Your task to perform on an android device: turn on data saver in the chrome app Image 0: 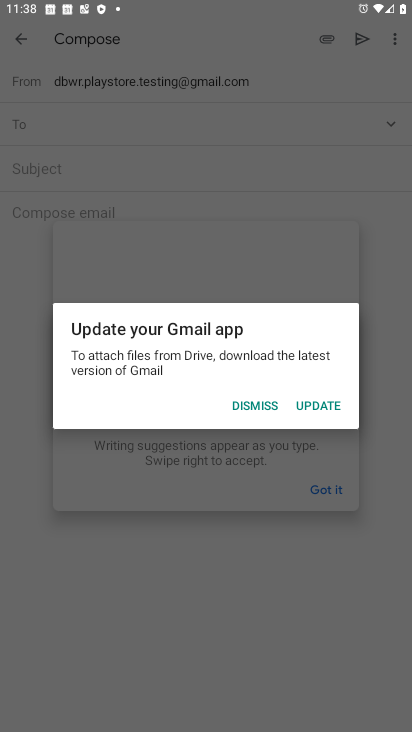
Step 0: press home button
Your task to perform on an android device: turn on data saver in the chrome app Image 1: 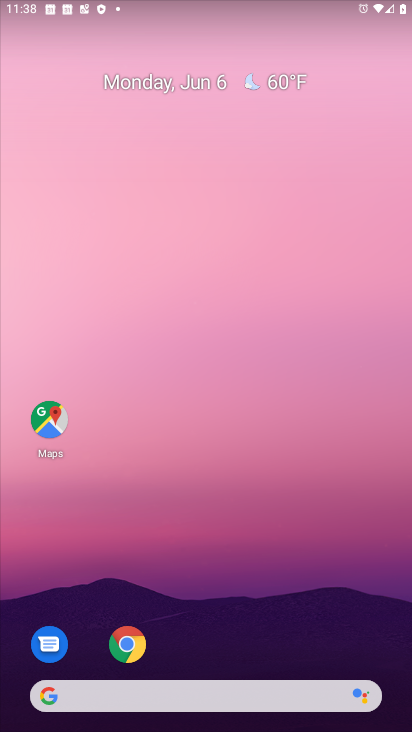
Step 1: click (134, 654)
Your task to perform on an android device: turn on data saver in the chrome app Image 2: 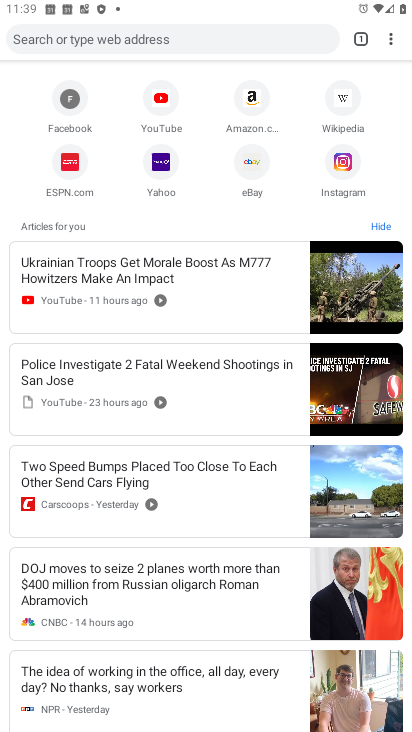
Step 2: click (389, 36)
Your task to perform on an android device: turn on data saver in the chrome app Image 3: 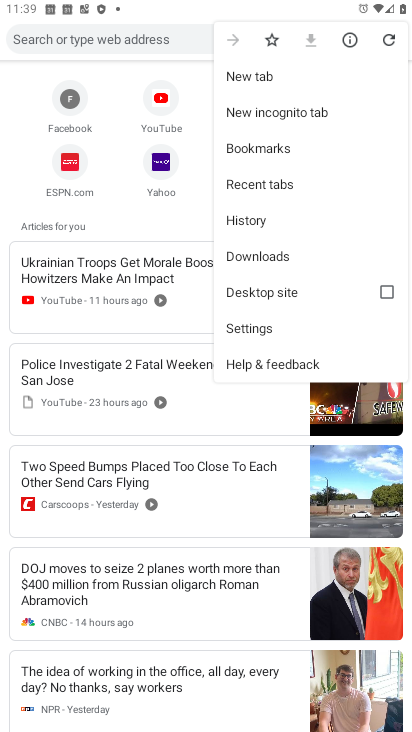
Step 3: click (265, 325)
Your task to perform on an android device: turn on data saver in the chrome app Image 4: 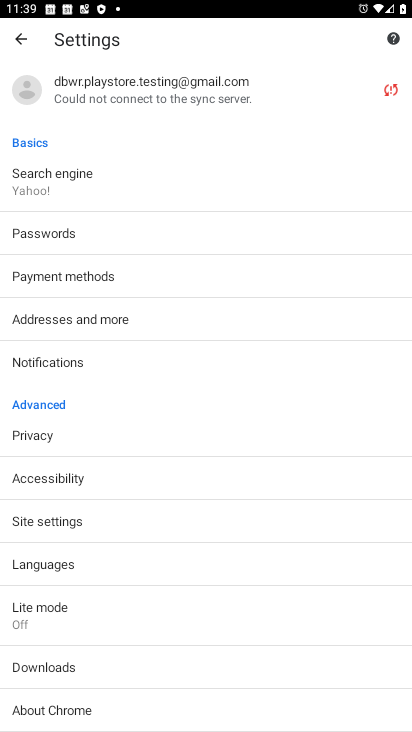
Step 4: click (63, 628)
Your task to perform on an android device: turn on data saver in the chrome app Image 5: 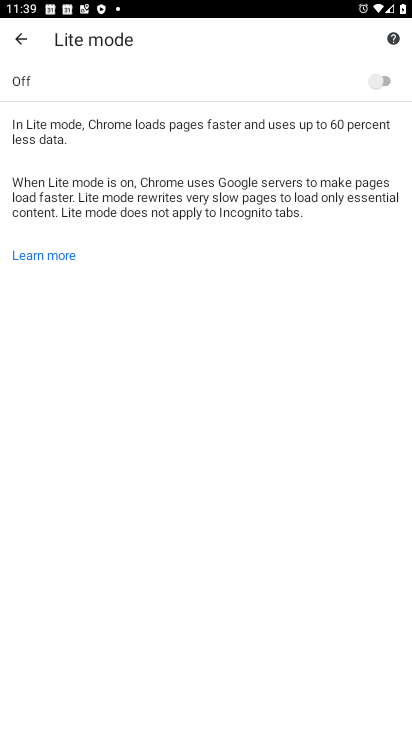
Step 5: click (379, 84)
Your task to perform on an android device: turn on data saver in the chrome app Image 6: 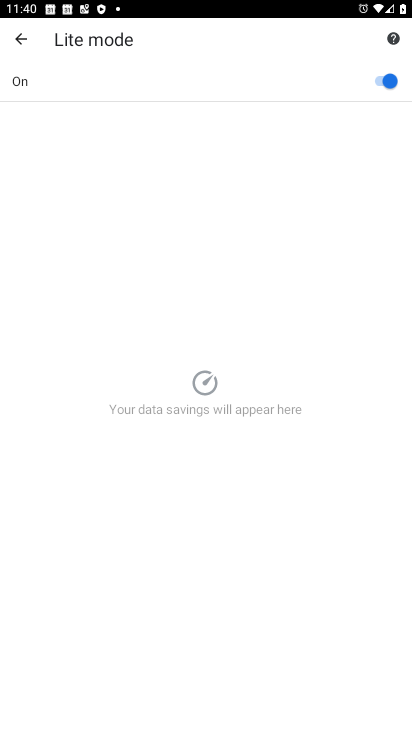
Step 6: task complete